Your task to perform on an android device: Add "bose soundlink" to the cart on ebay.com Image 0: 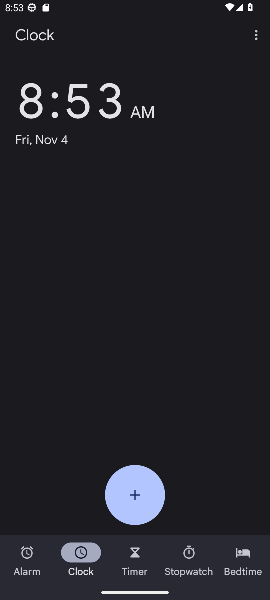
Step 0: press home button
Your task to perform on an android device: Add "bose soundlink" to the cart on ebay.com Image 1: 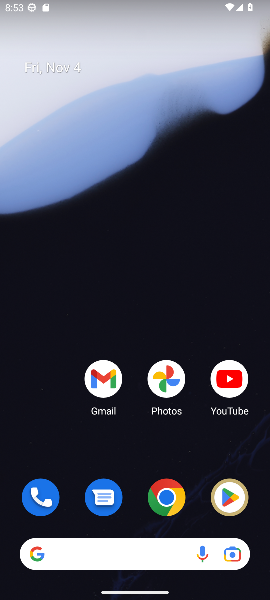
Step 1: click (172, 495)
Your task to perform on an android device: Add "bose soundlink" to the cart on ebay.com Image 2: 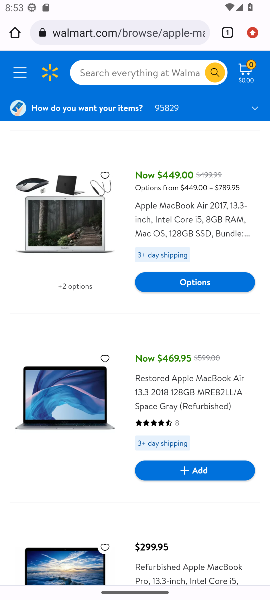
Step 2: click (124, 32)
Your task to perform on an android device: Add "bose soundlink" to the cart on ebay.com Image 3: 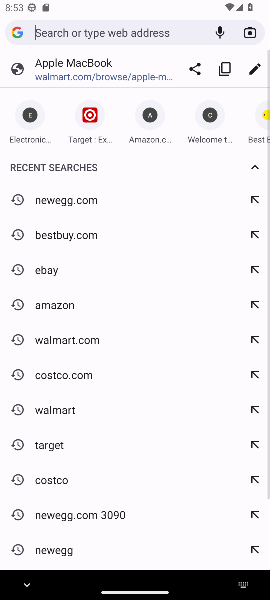
Step 3: click (53, 271)
Your task to perform on an android device: Add "bose soundlink" to the cart on ebay.com Image 4: 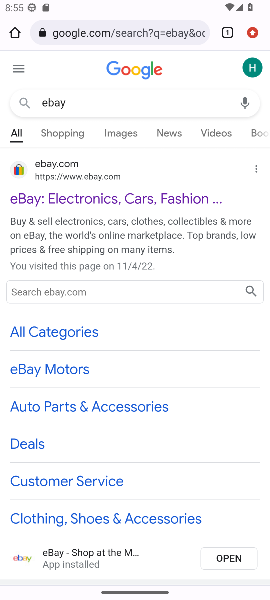
Step 4: click (75, 208)
Your task to perform on an android device: Add "bose soundlink" to the cart on ebay.com Image 5: 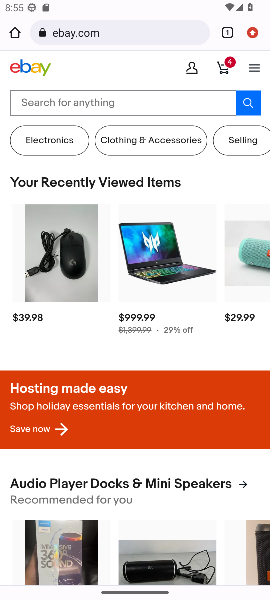
Step 5: click (78, 97)
Your task to perform on an android device: Add "bose soundlink" to the cart on ebay.com Image 6: 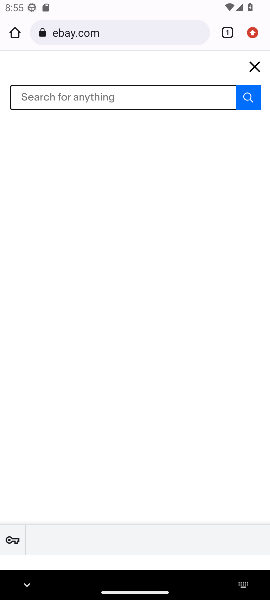
Step 6: type "bose soundlink"
Your task to perform on an android device: Add "bose soundlink" to the cart on ebay.com Image 7: 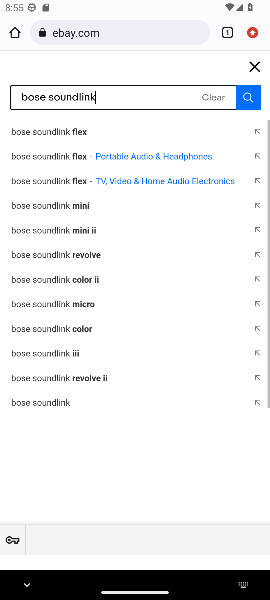
Step 7: click (50, 403)
Your task to perform on an android device: Add "bose soundlink" to the cart on ebay.com Image 8: 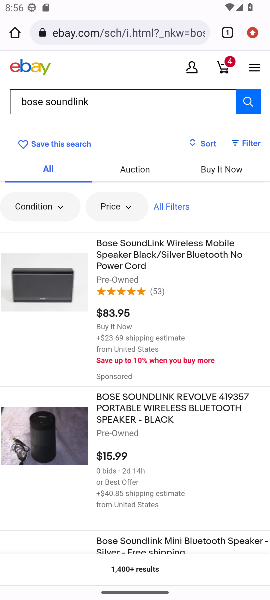
Step 8: click (119, 269)
Your task to perform on an android device: Add "bose soundlink" to the cart on ebay.com Image 9: 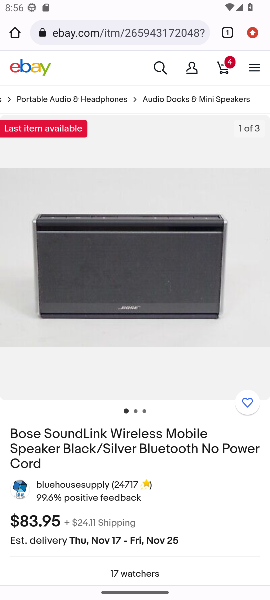
Step 9: drag from (105, 472) to (136, 163)
Your task to perform on an android device: Add "bose soundlink" to the cart on ebay.com Image 10: 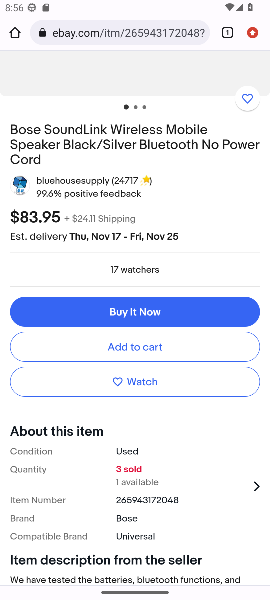
Step 10: click (134, 344)
Your task to perform on an android device: Add "bose soundlink" to the cart on ebay.com Image 11: 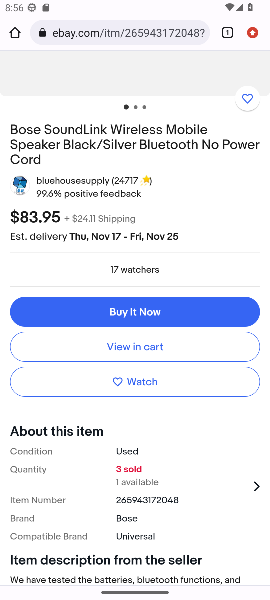
Step 11: task complete